Your task to perform on an android device: Add logitech g pro to the cart on ebay Image 0: 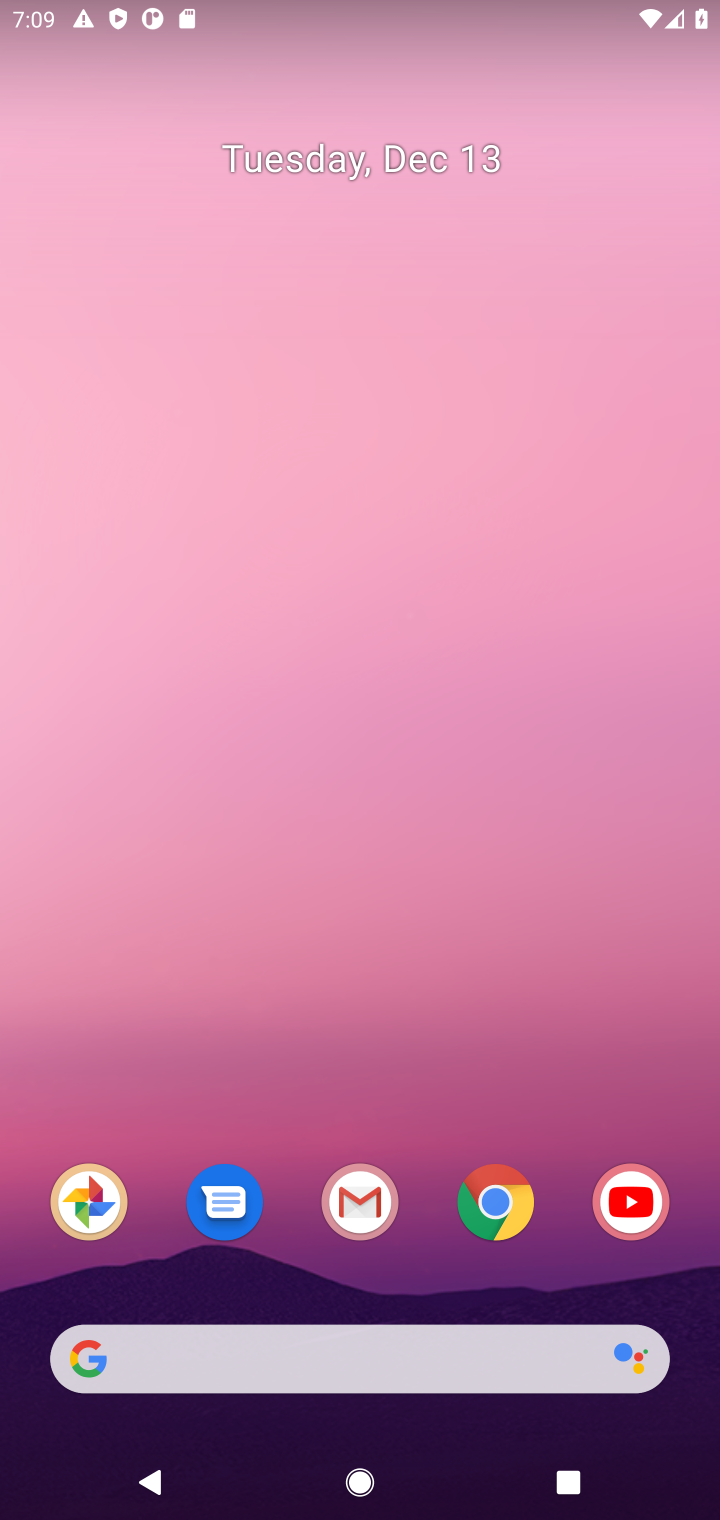
Step 0: click (516, 1200)
Your task to perform on an android device: Add logitech g pro to the cart on ebay Image 1: 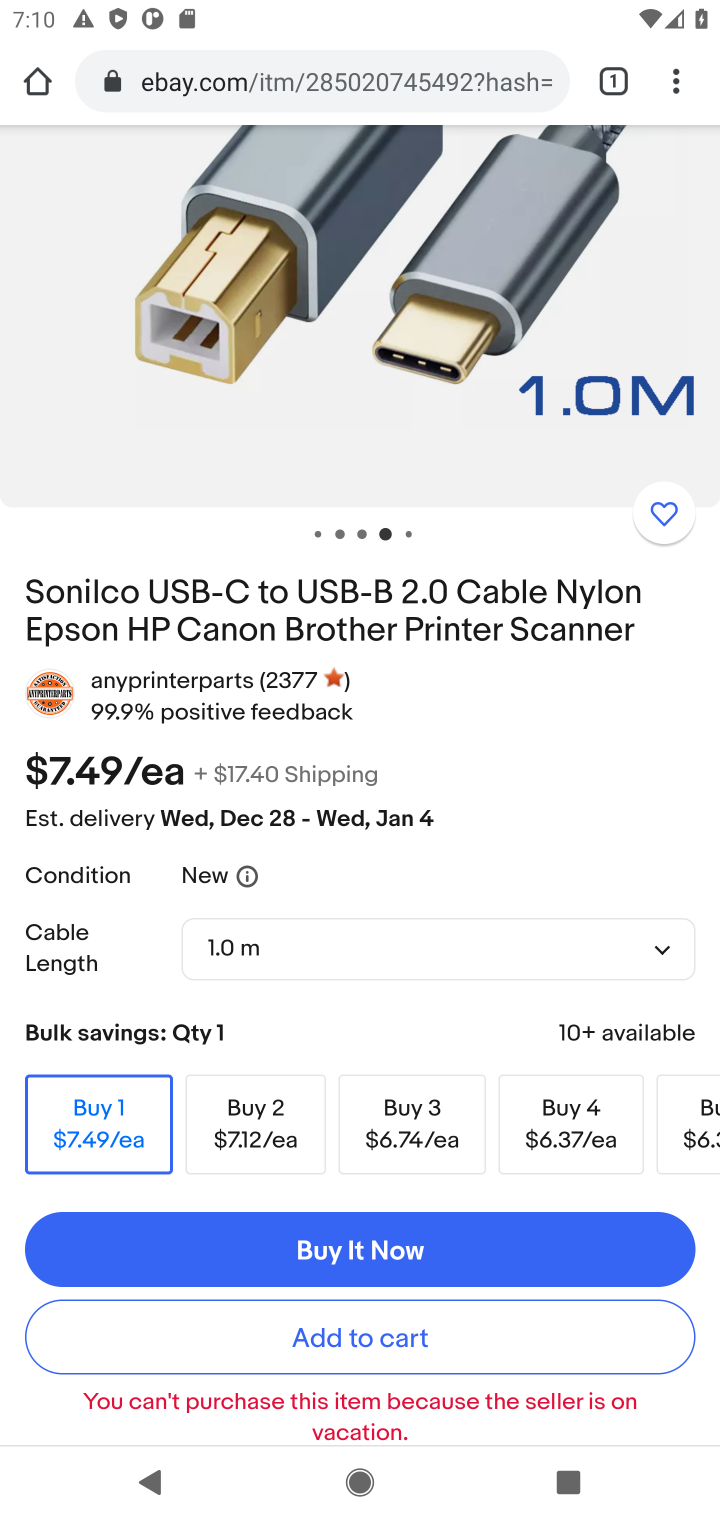
Step 1: drag from (416, 424) to (450, 1118)
Your task to perform on an android device: Add logitech g pro to the cart on ebay Image 2: 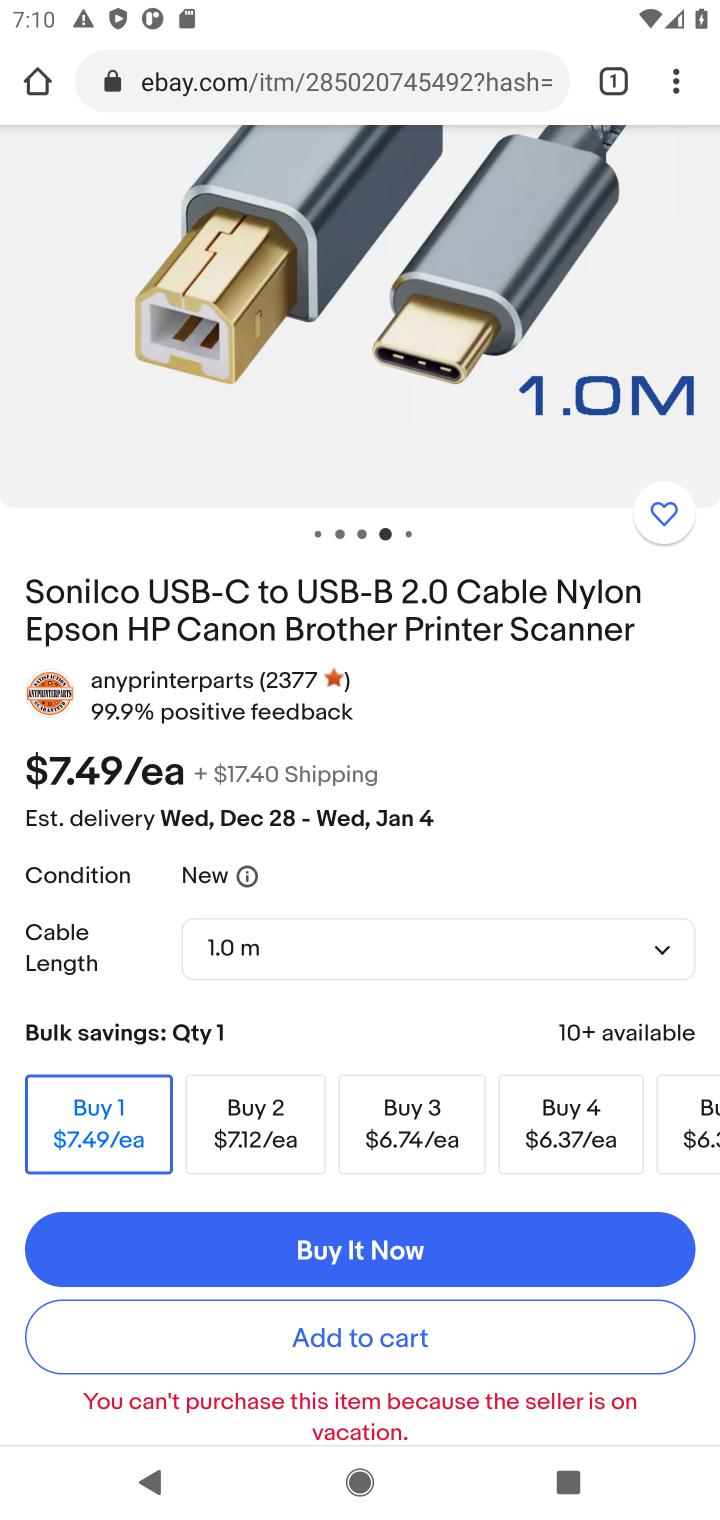
Step 2: drag from (309, 274) to (234, 1007)
Your task to perform on an android device: Add logitech g pro to the cart on ebay Image 3: 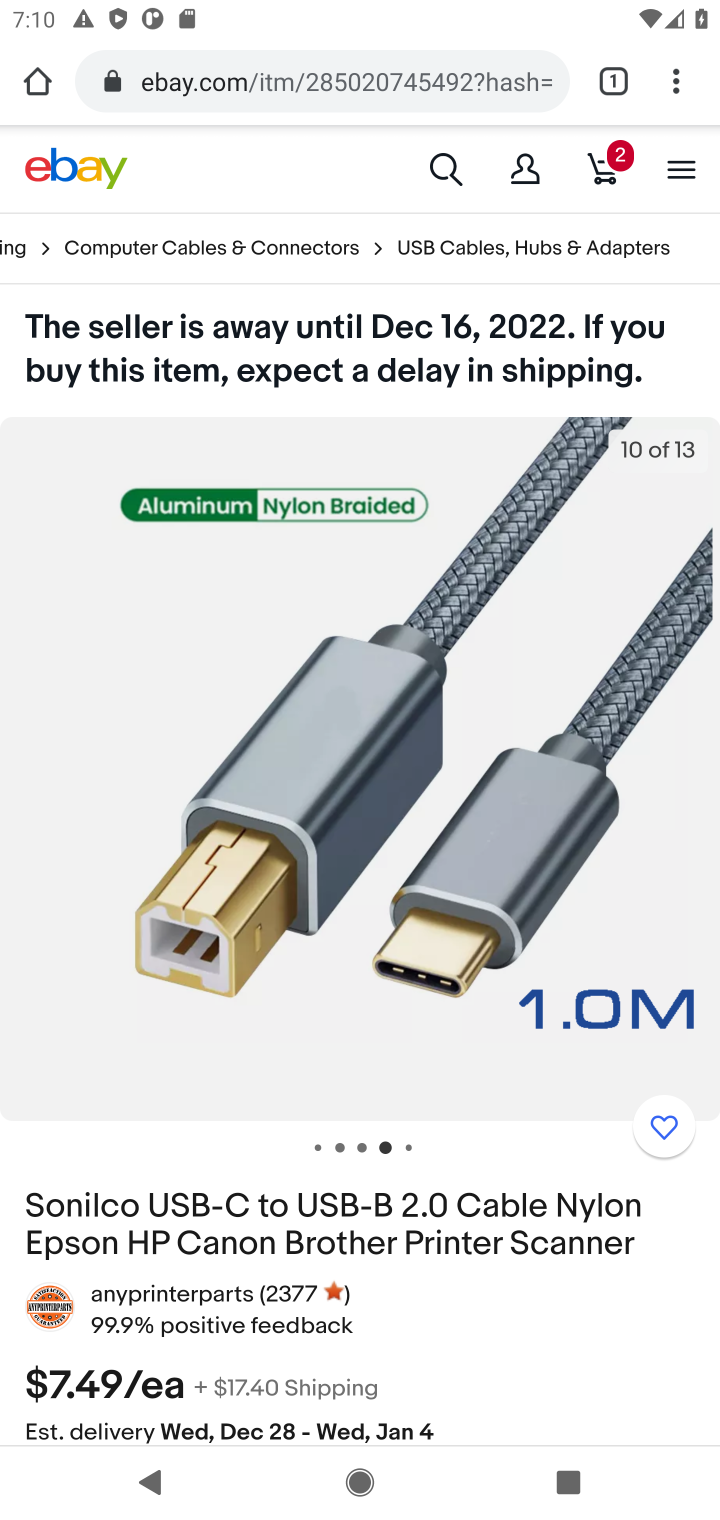
Step 3: click (445, 162)
Your task to perform on an android device: Add logitech g pro to the cart on ebay Image 4: 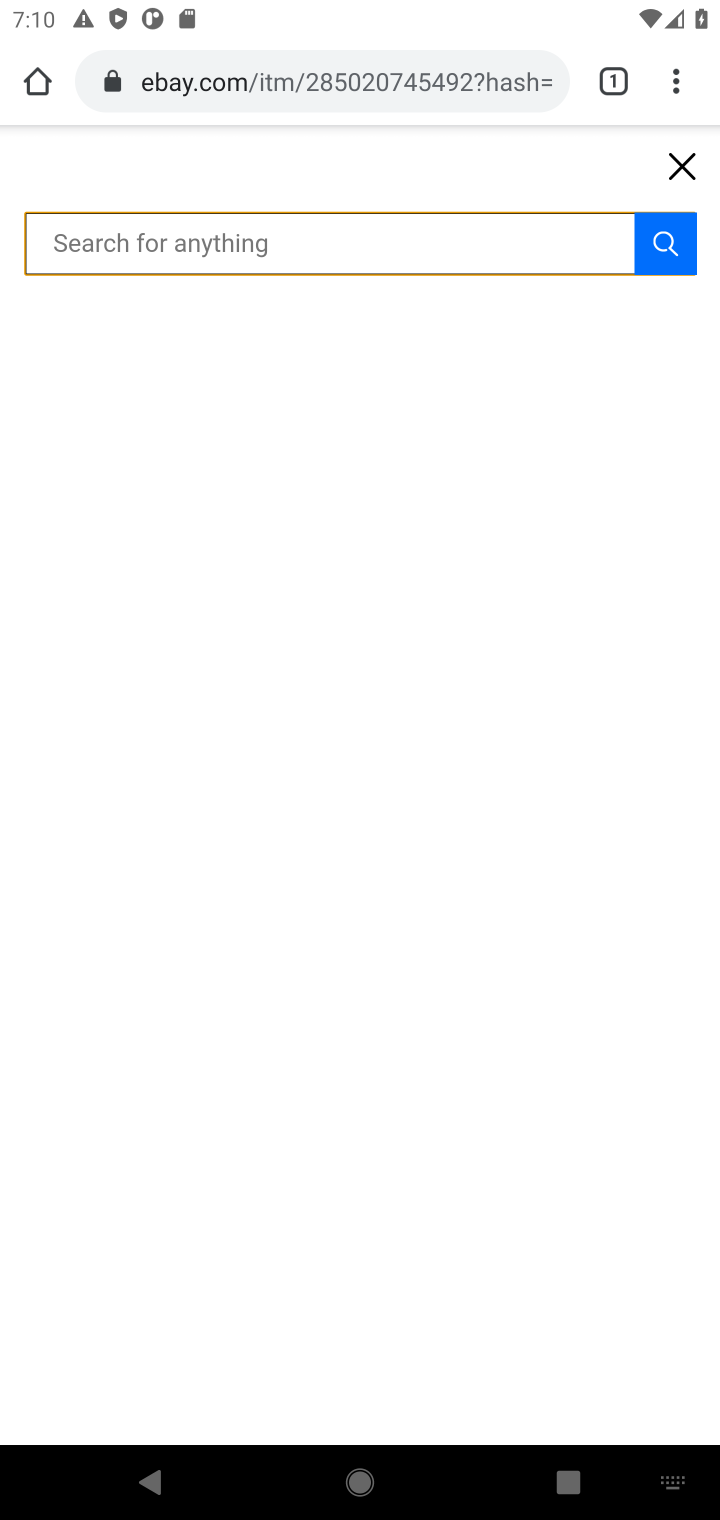
Step 4: type "logitech g pro"
Your task to perform on an android device: Add logitech g pro to the cart on ebay Image 5: 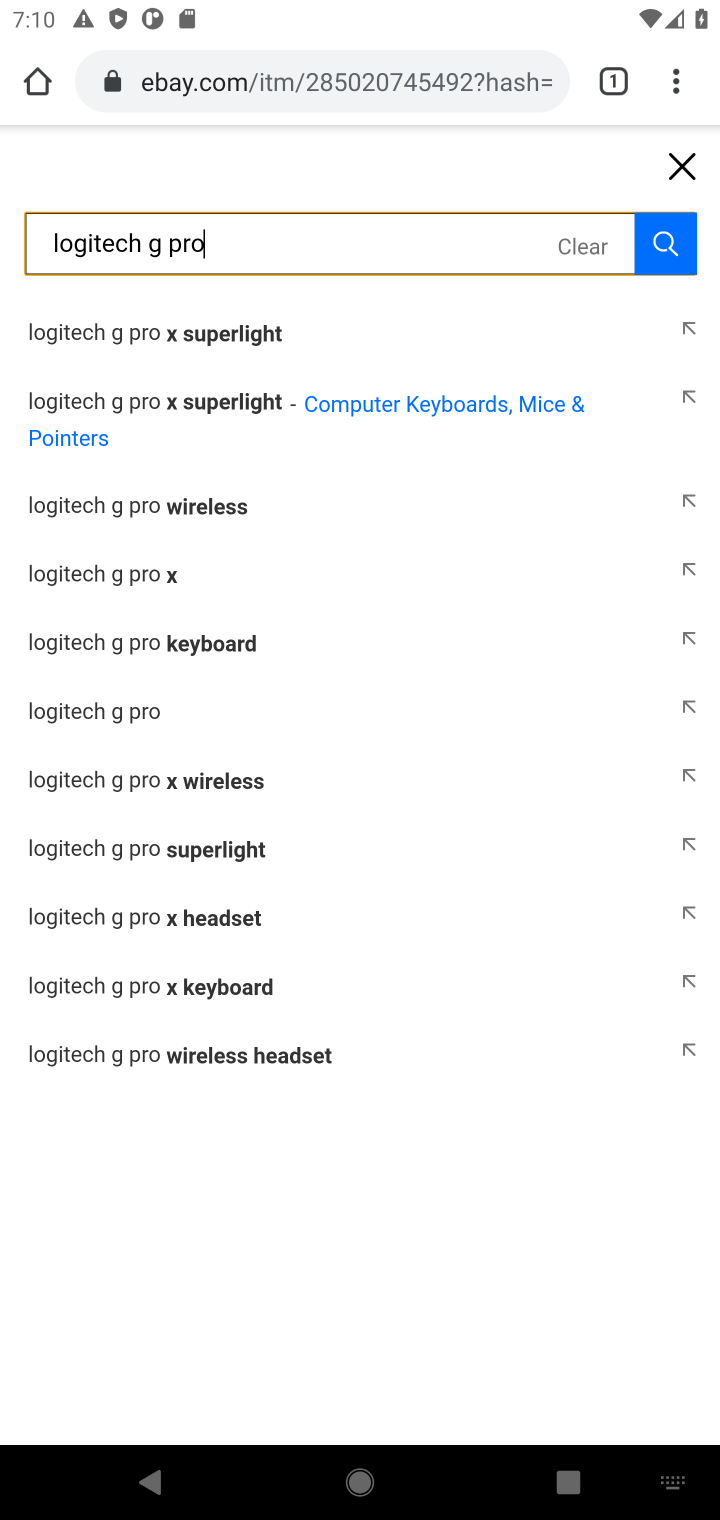
Step 5: click (105, 718)
Your task to perform on an android device: Add logitech g pro to the cart on ebay Image 6: 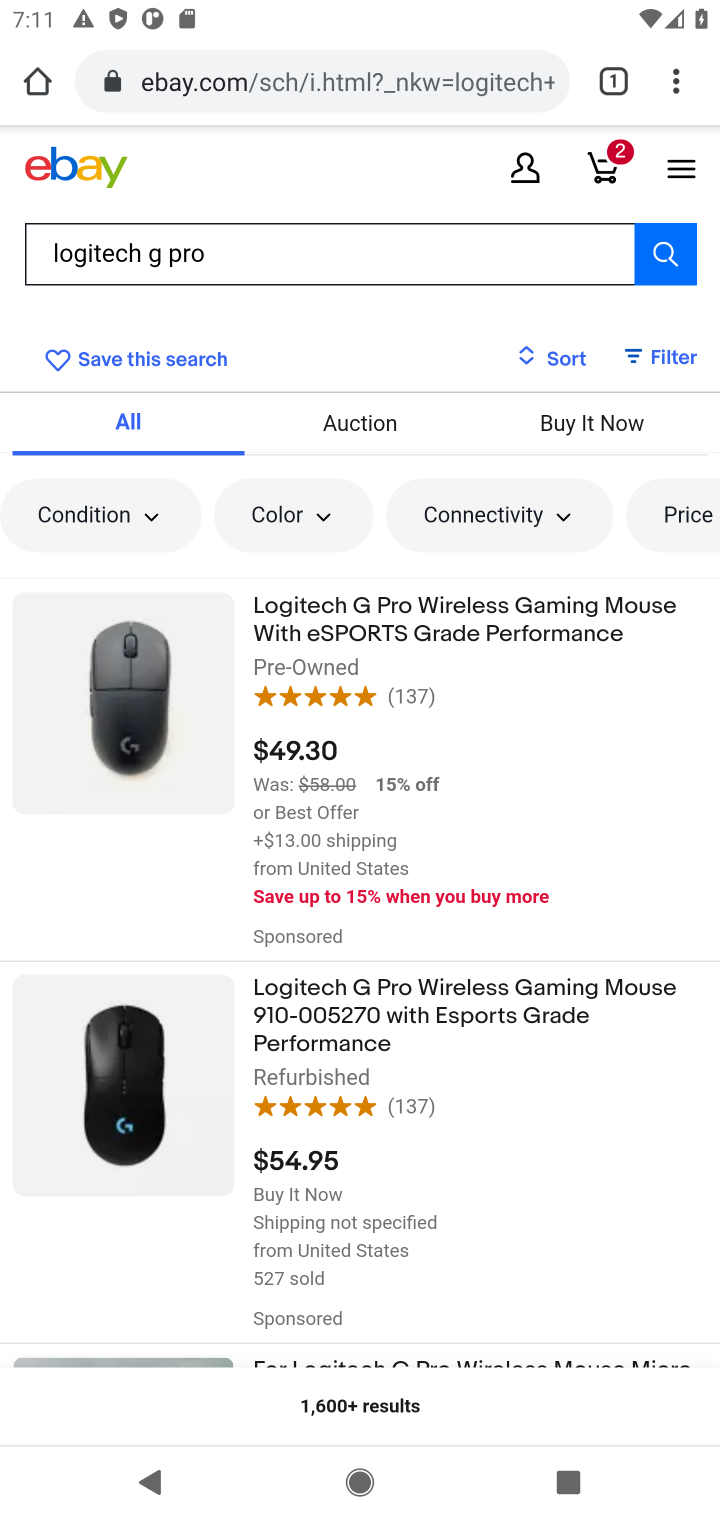
Step 6: click (312, 640)
Your task to perform on an android device: Add logitech g pro to the cart on ebay Image 7: 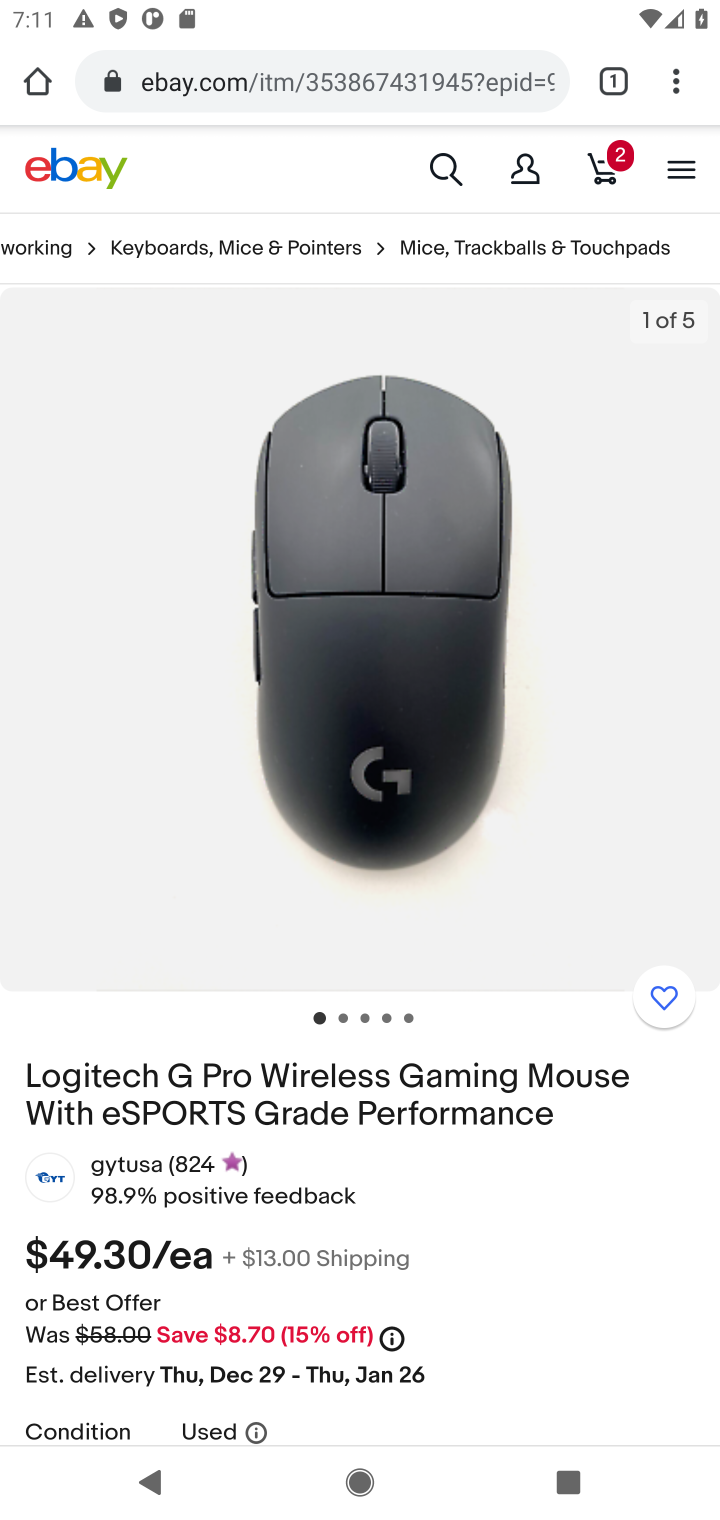
Step 7: drag from (318, 1077) to (291, 497)
Your task to perform on an android device: Add logitech g pro to the cart on ebay Image 8: 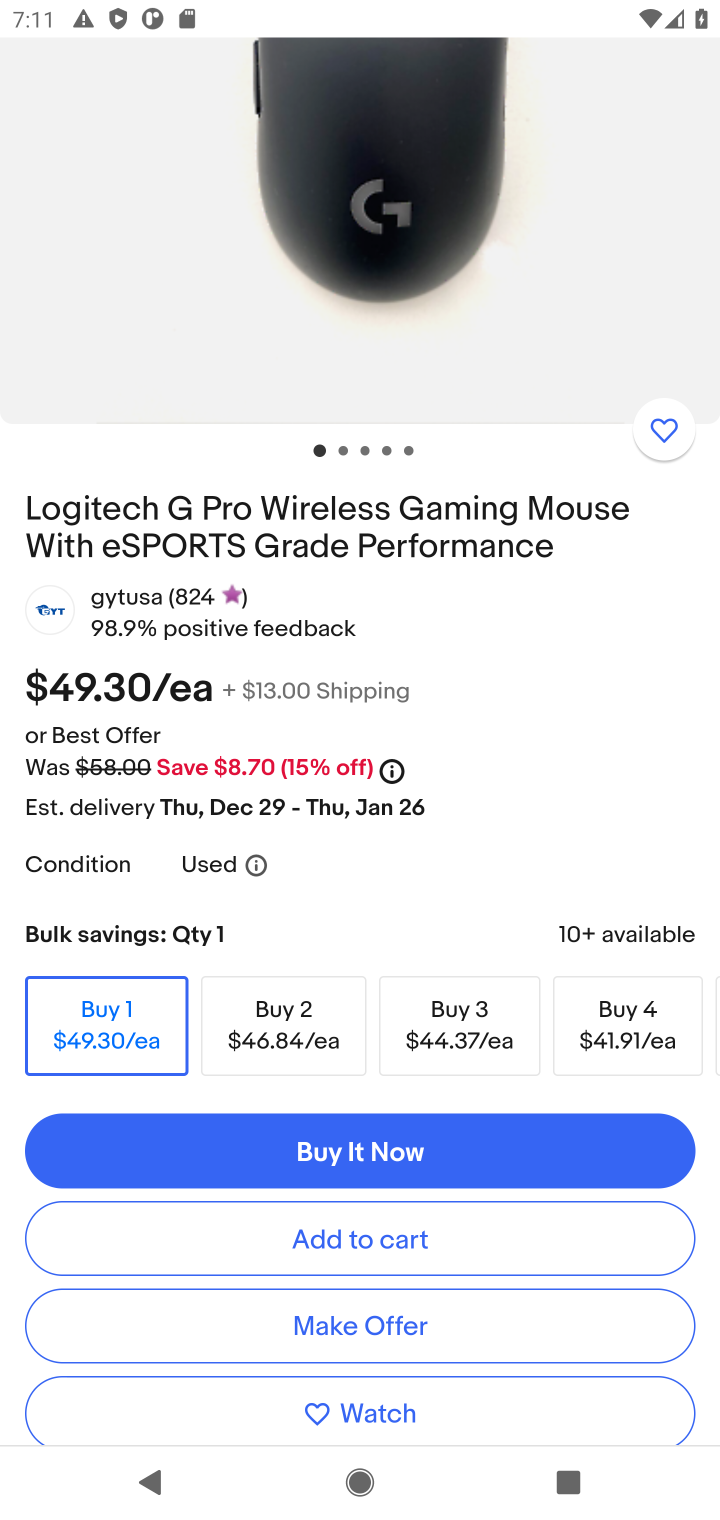
Step 8: click (311, 1230)
Your task to perform on an android device: Add logitech g pro to the cart on ebay Image 9: 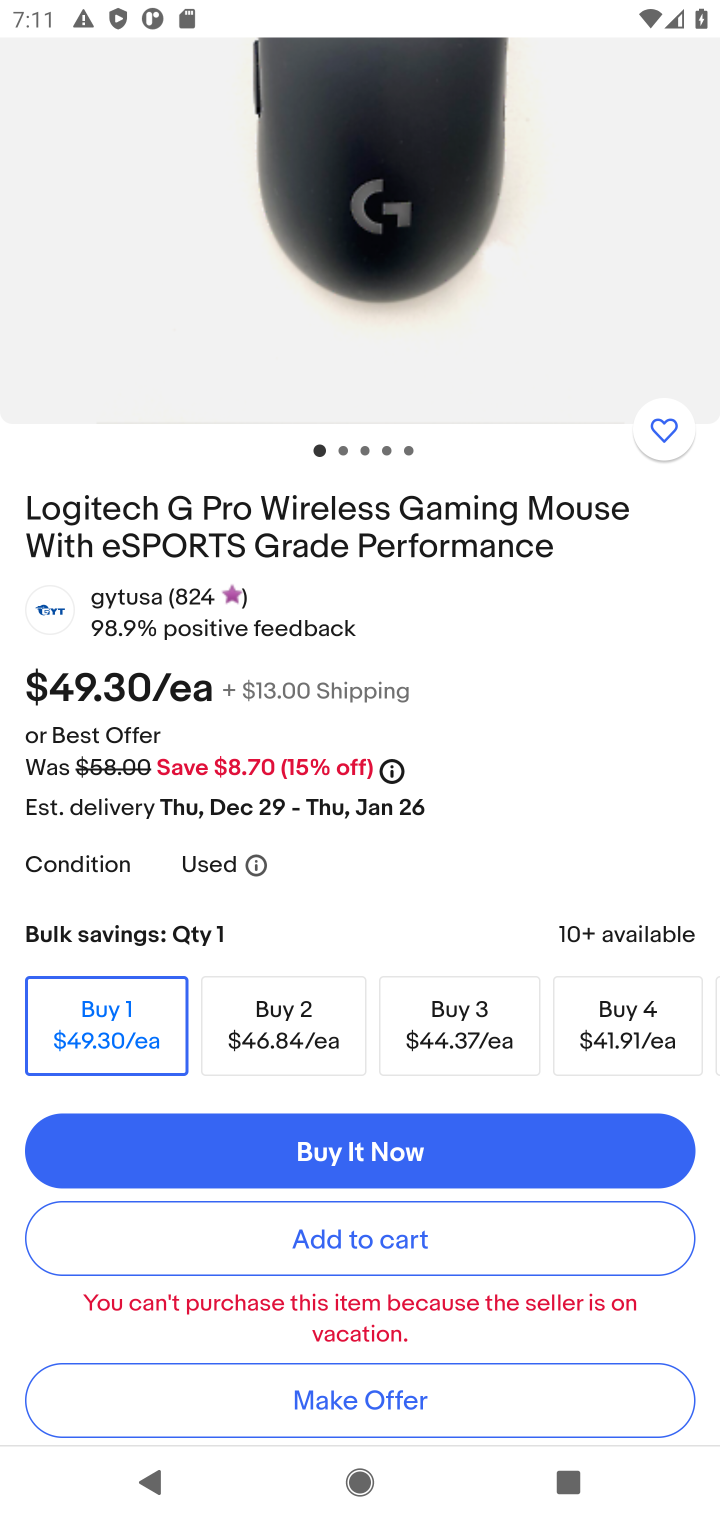
Step 9: press back button
Your task to perform on an android device: Add logitech g pro to the cart on ebay Image 10: 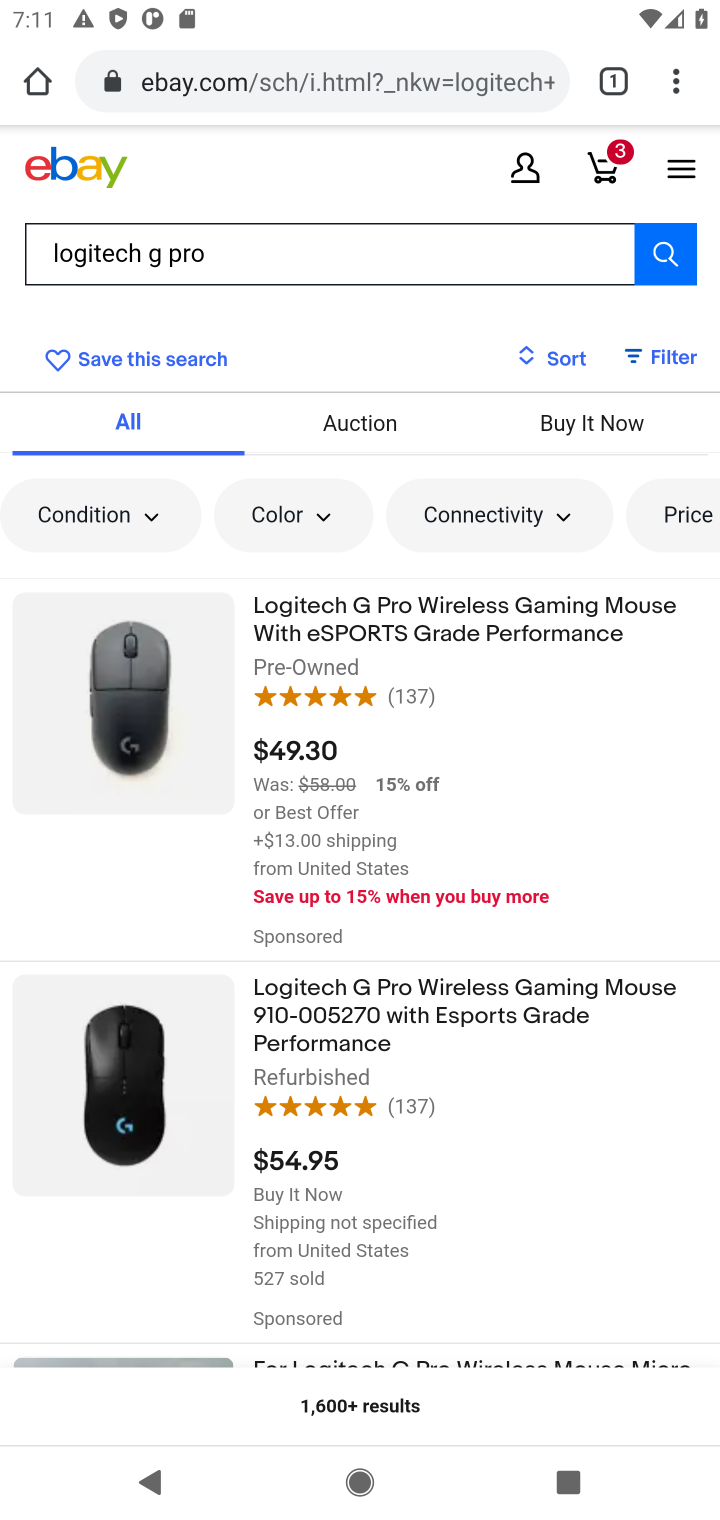
Step 10: click (296, 1042)
Your task to perform on an android device: Add logitech g pro to the cart on ebay Image 11: 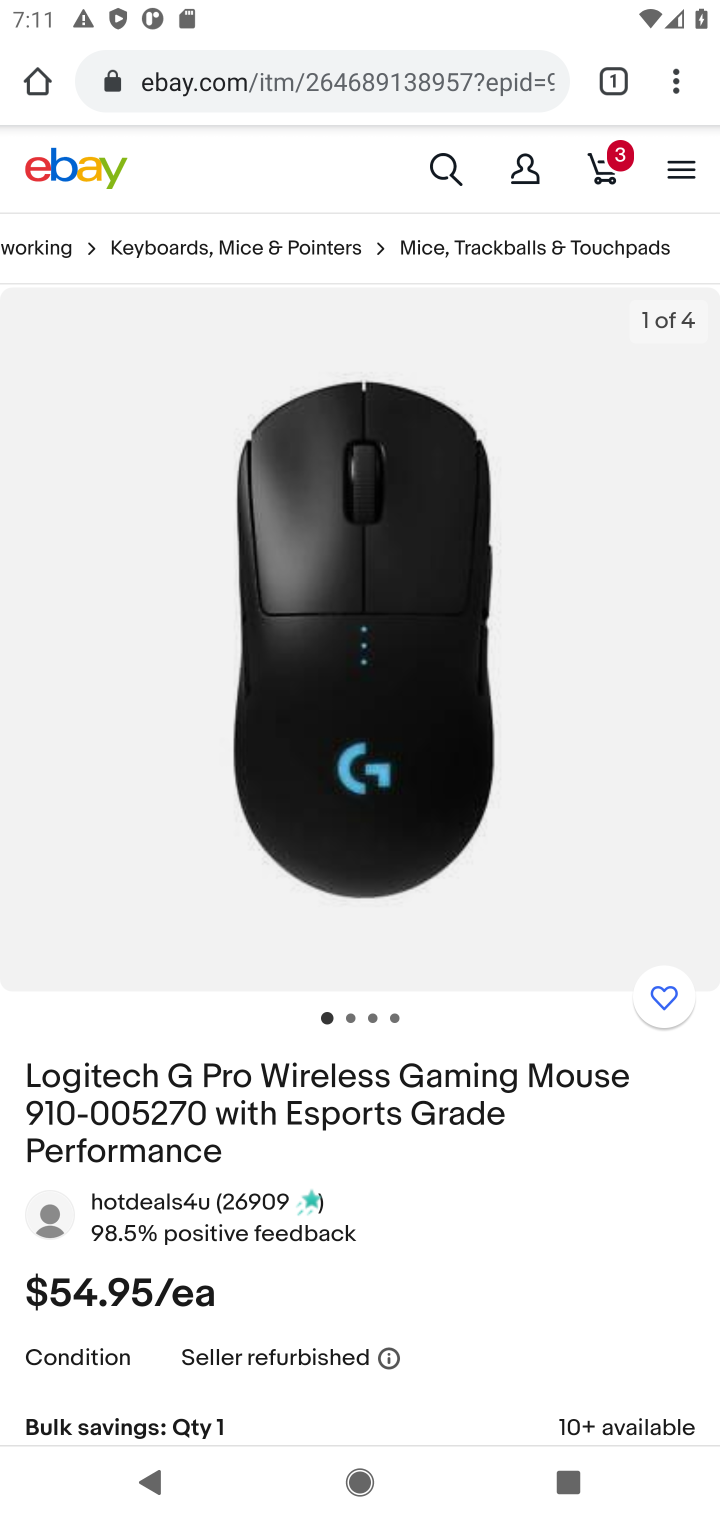
Step 11: drag from (273, 1059) to (230, 590)
Your task to perform on an android device: Add logitech g pro to the cart on ebay Image 12: 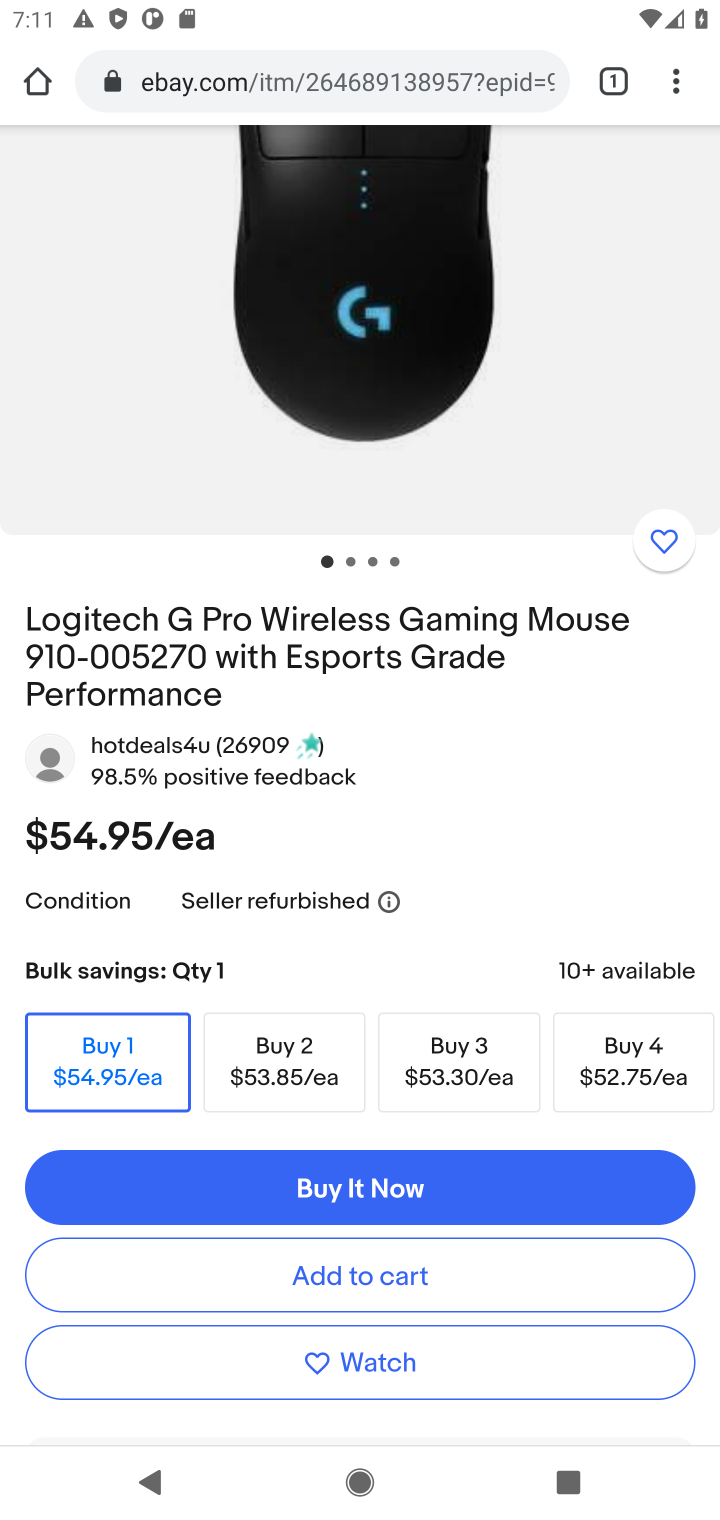
Step 12: click (288, 1288)
Your task to perform on an android device: Add logitech g pro to the cart on ebay Image 13: 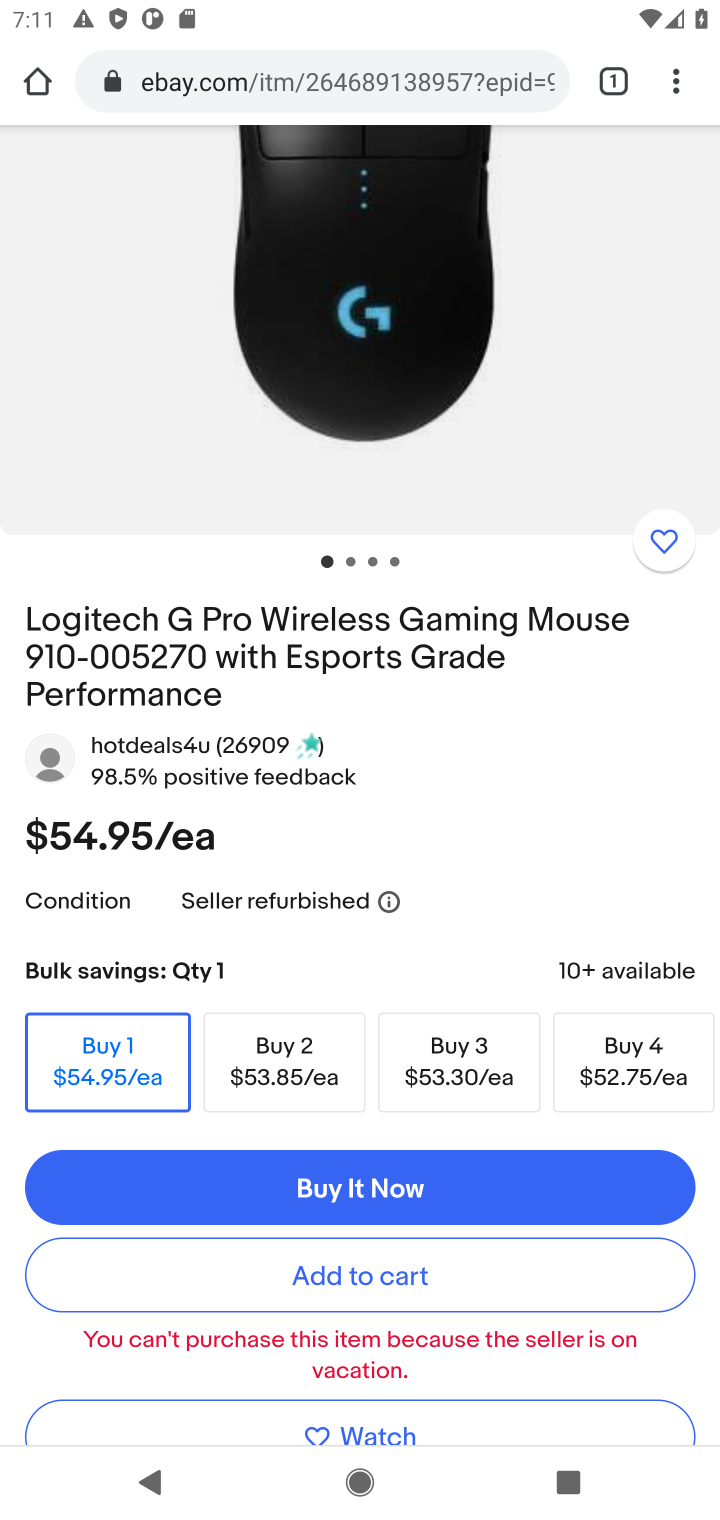
Step 13: press back button
Your task to perform on an android device: Add logitech g pro to the cart on ebay Image 14: 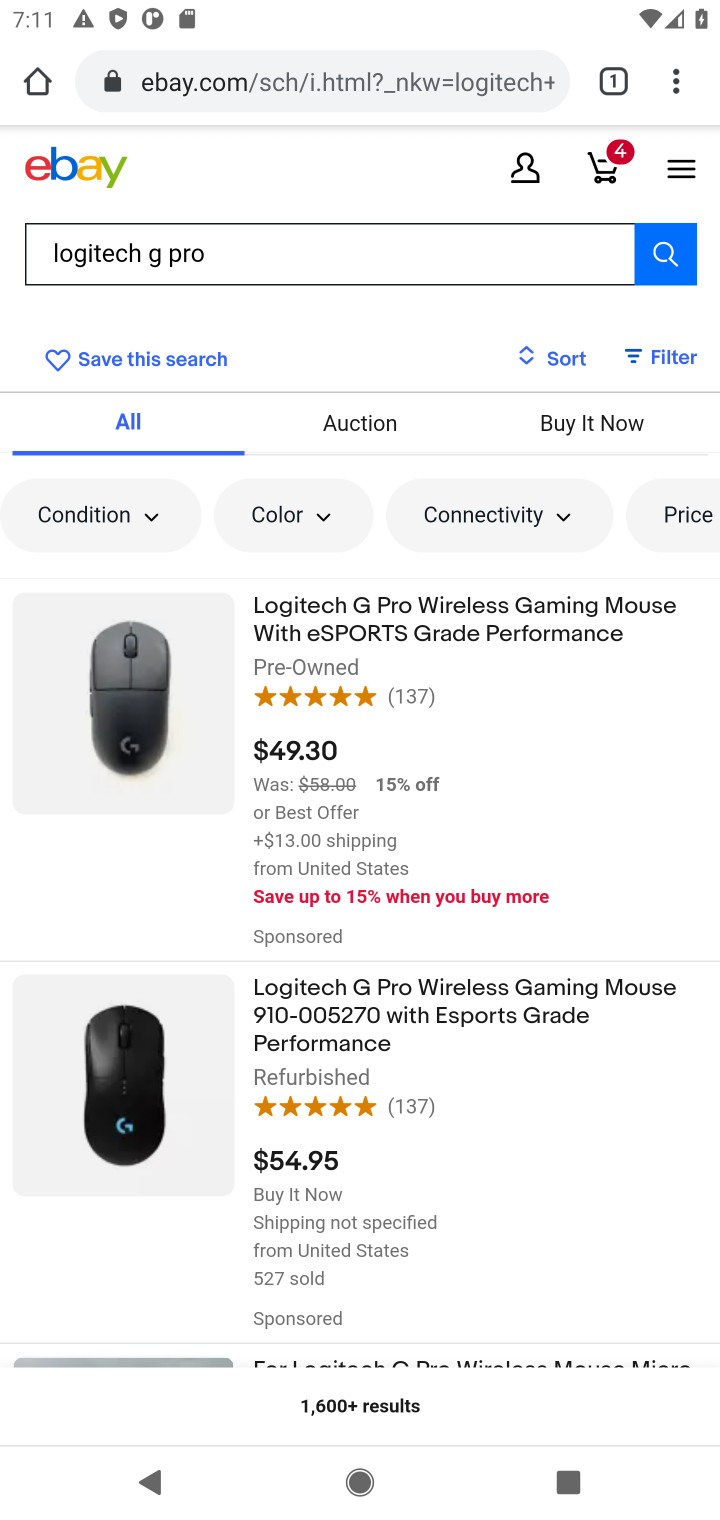
Step 14: drag from (303, 1204) to (263, 653)
Your task to perform on an android device: Add logitech g pro to the cart on ebay Image 15: 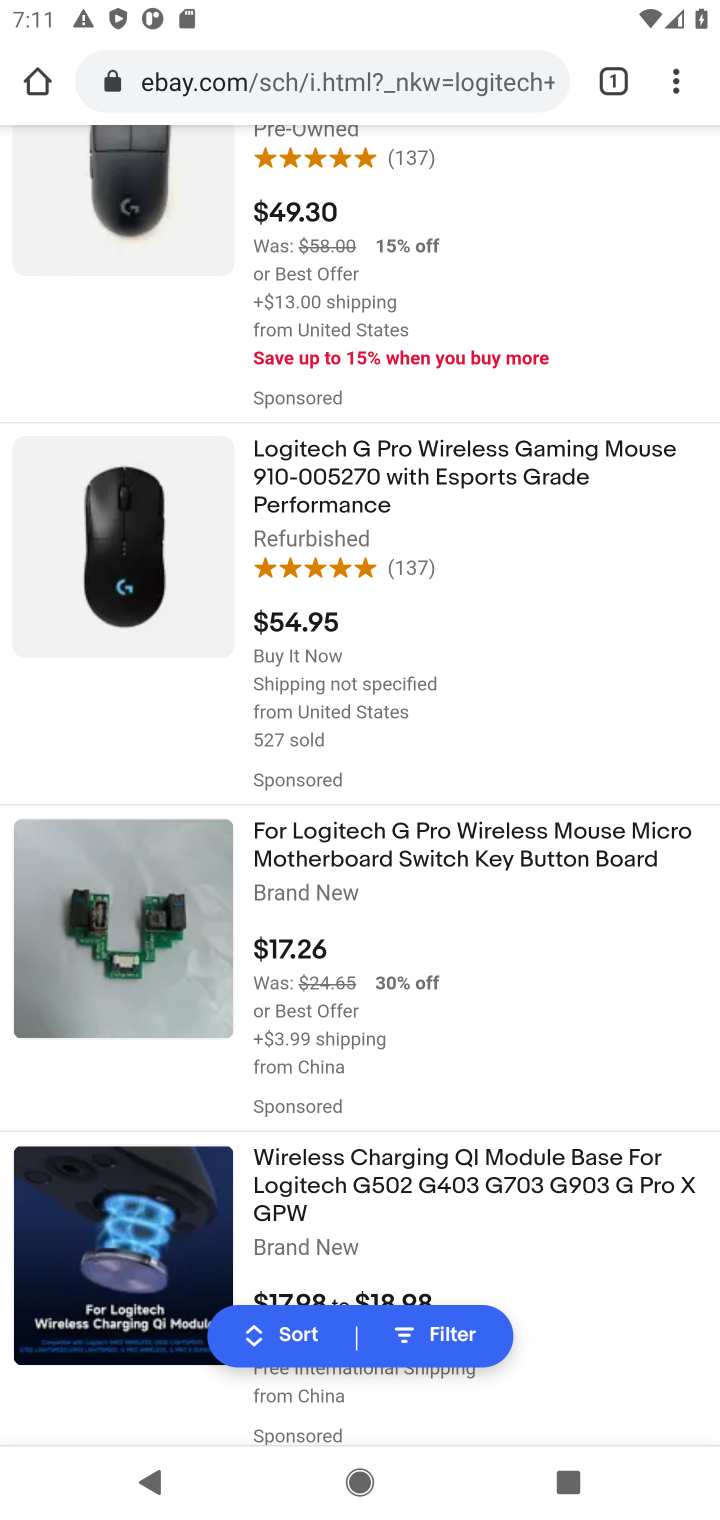
Step 15: click (285, 875)
Your task to perform on an android device: Add logitech g pro to the cart on ebay Image 16: 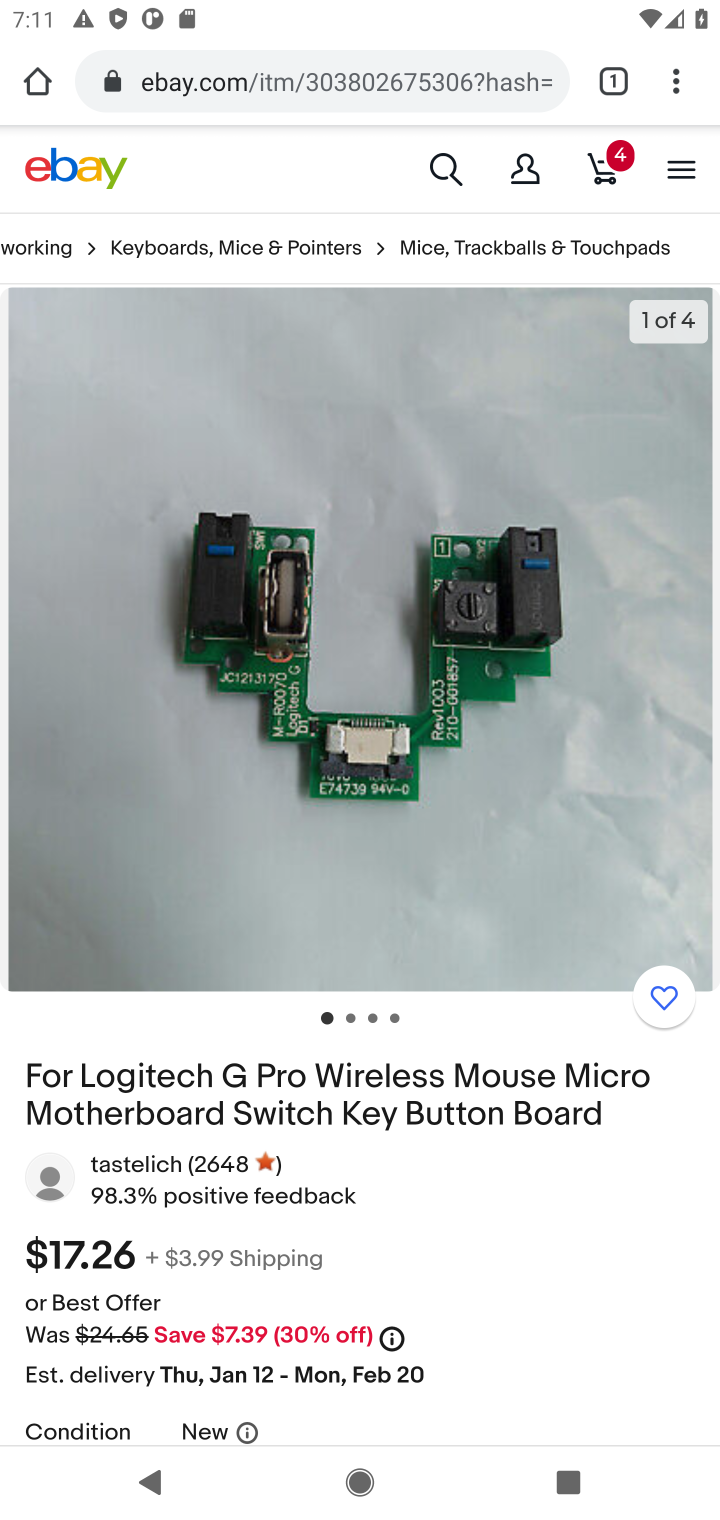
Step 16: drag from (314, 1258) to (268, 797)
Your task to perform on an android device: Add logitech g pro to the cart on ebay Image 17: 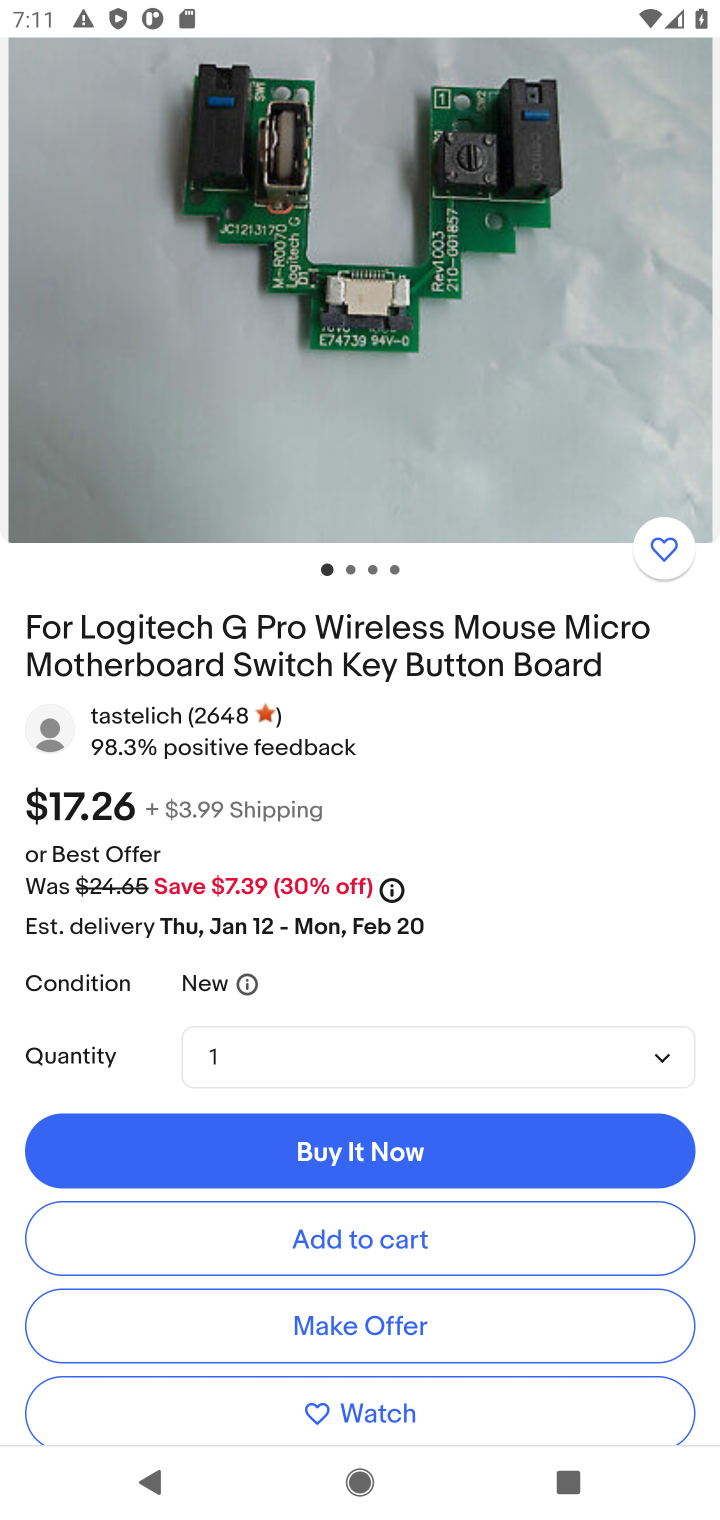
Step 17: click (330, 1240)
Your task to perform on an android device: Add logitech g pro to the cart on ebay Image 18: 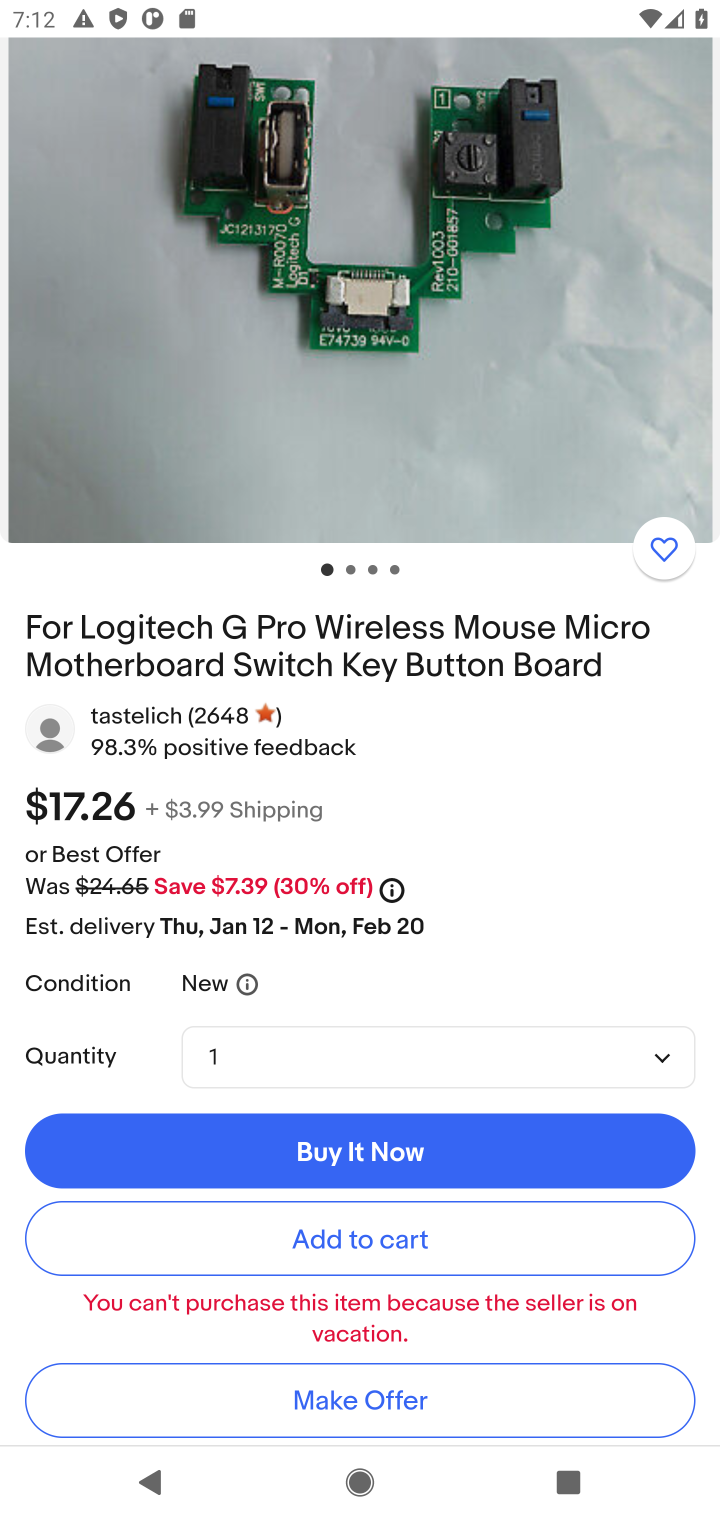
Step 18: task complete